Your task to perform on an android device: Search for sushi restaurants on Maps Image 0: 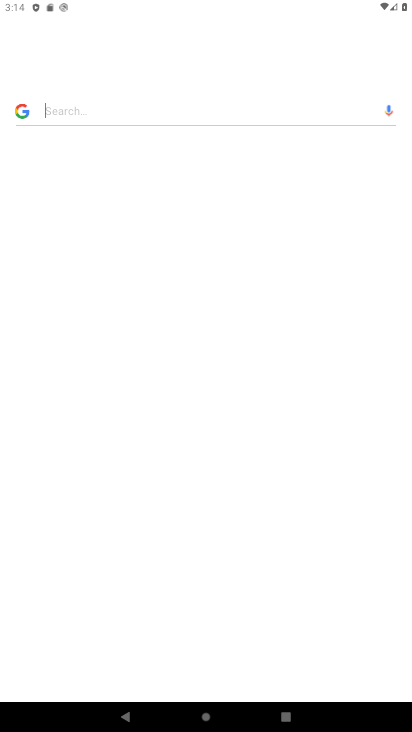
Step 0: click (237, 209)
Your task to perform on an android device: Search for sushi restaurants on Maps Image 1: 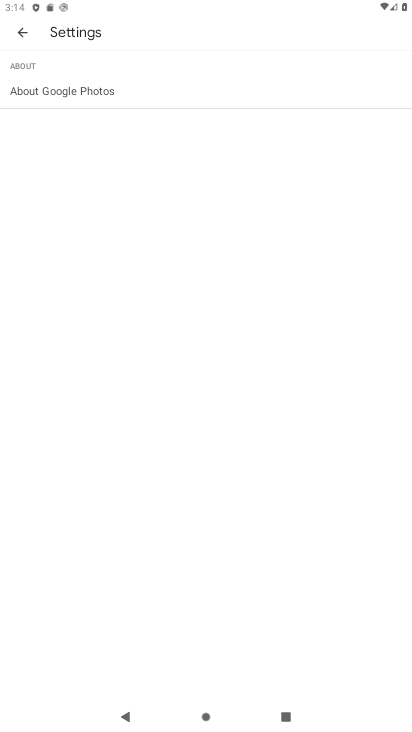
Step 1: press home button
Your task to perform on an android device: Search for sushi restaurants on Maps Image 2: 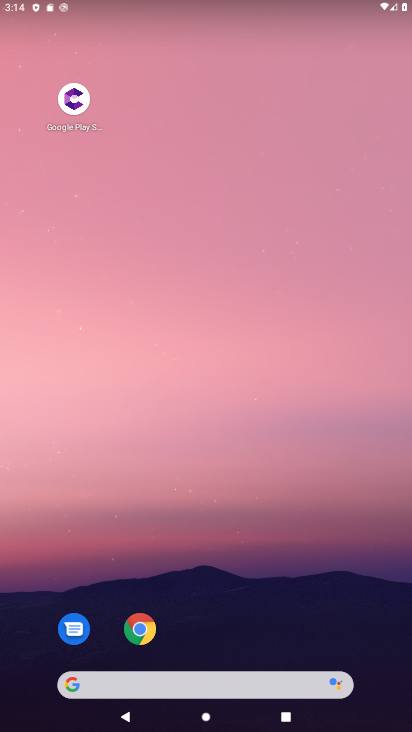
Step 2: drag from (204, 667) to (183, 125)
Your task to perform on an android device: Search for sushi restaurants on Maps Image 3: 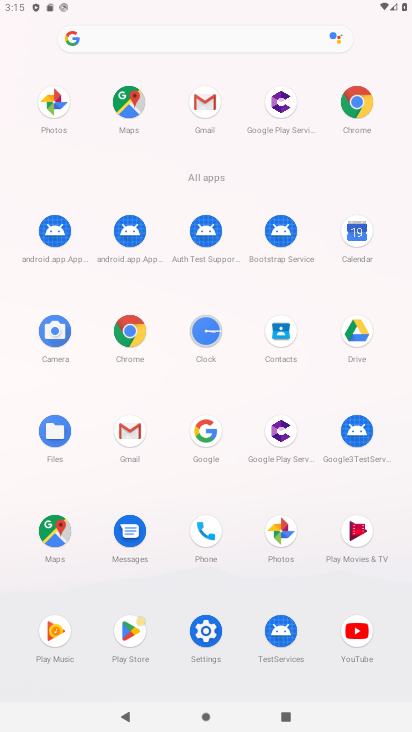
Step 3: click (52, 530)
Your task to perform on an android device: Search for sushi restaurants on Maps Image 4: 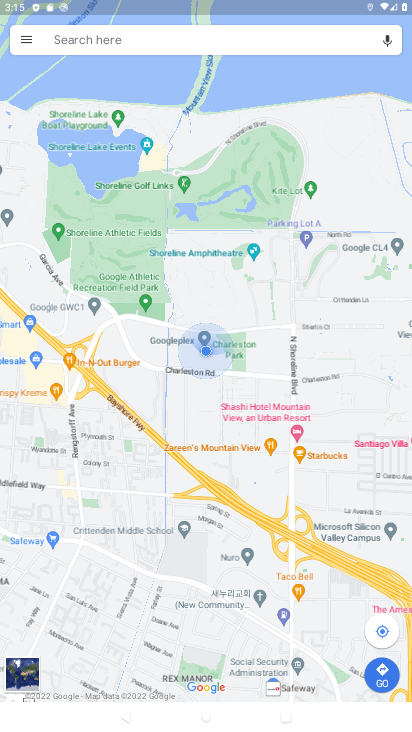
Step 4: click (93, 39)
Your task to perform on an android device: Search for sushi restaurants on Maps Image 5: 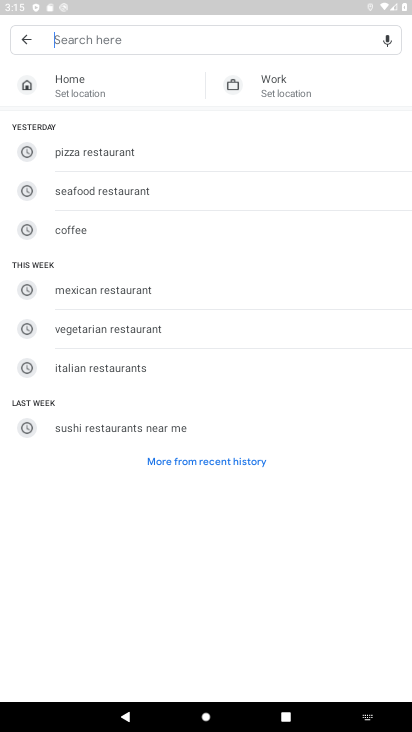
Step 5: click (112, 427)
Your task to perform on an android device: Search for sushi restaurants on Maps Image 6: 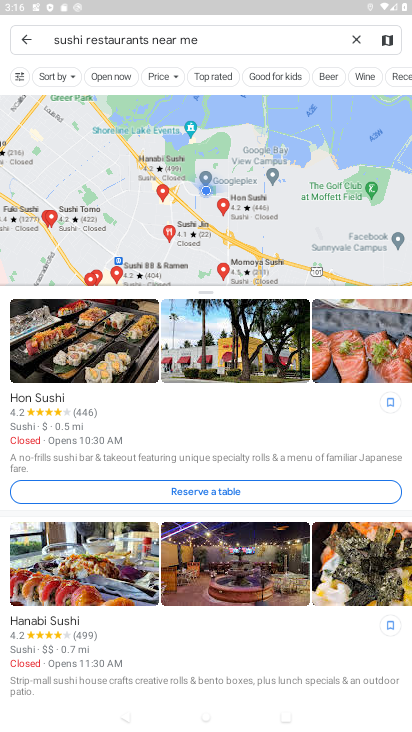
Step 6: task complete